Your task to perform on an android device: delete browsing data in the chrome app Image 0: 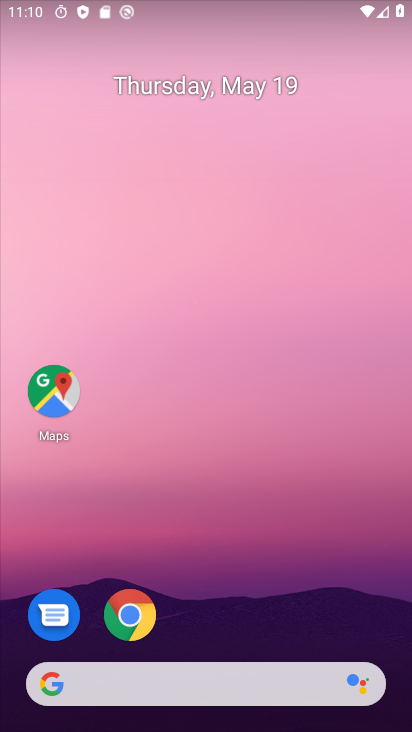
Step 0: click (138, 617)
Your task to perform on an android device: delete browsing data in the chrome app Image 1: 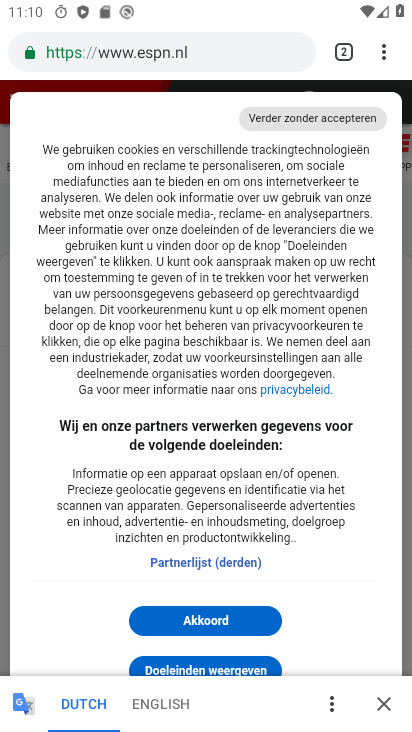
Step 1: click (381, 56)
Your task to perform on an android device: delete browsing data in the chrome app Image 2: 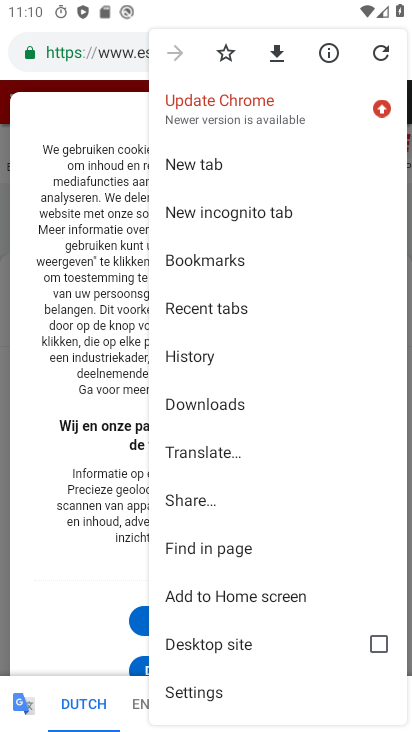
Step 2: click (205, 360)
Your task to perform on an android device: delete browsing data in the chrome app Image 3: 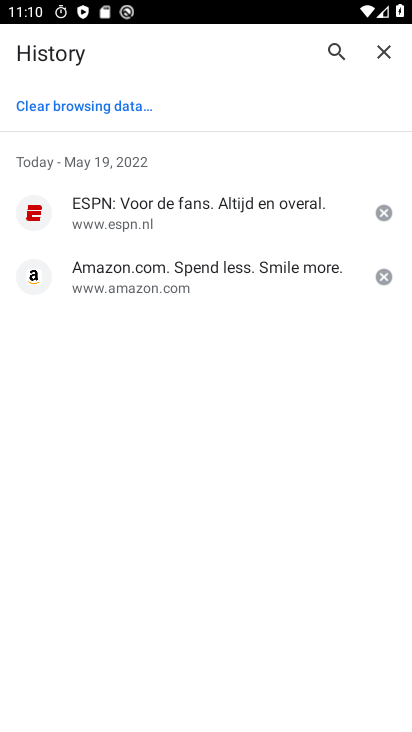
Step 3: click (95, 108)
Your task to perform on an android device: delete browsing data in the chrome app Image 4: 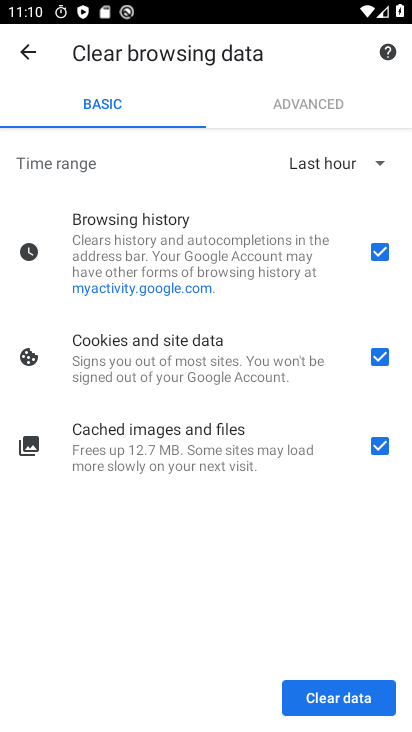
Step 4: click (329, 156)
Your task to perform on an android device: delete browsing data in the chrome app Image 5: 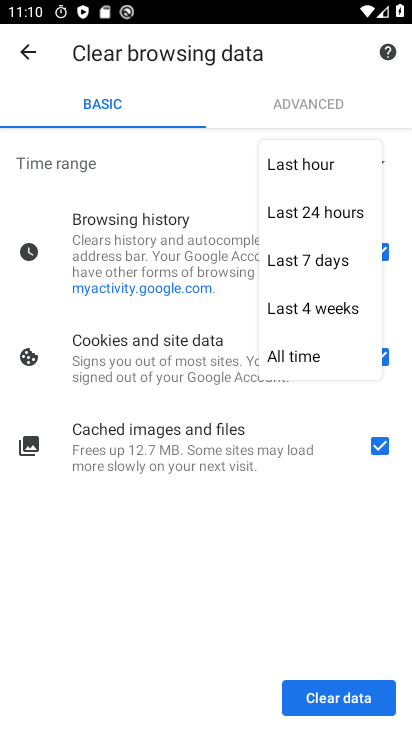
Step 5: click (312, 360)
Your task to perform on an android device: delete browsing data in the chrome app Image 6: 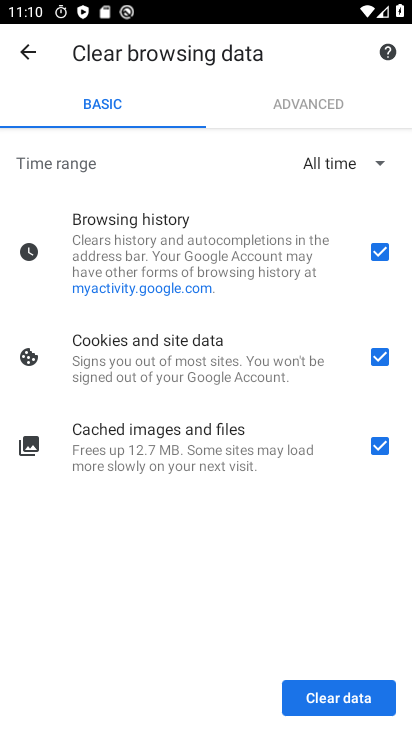
Step 6: click (385, 361)
Your task to perform on an android device: delete browsing data in the chrome app Image 7: 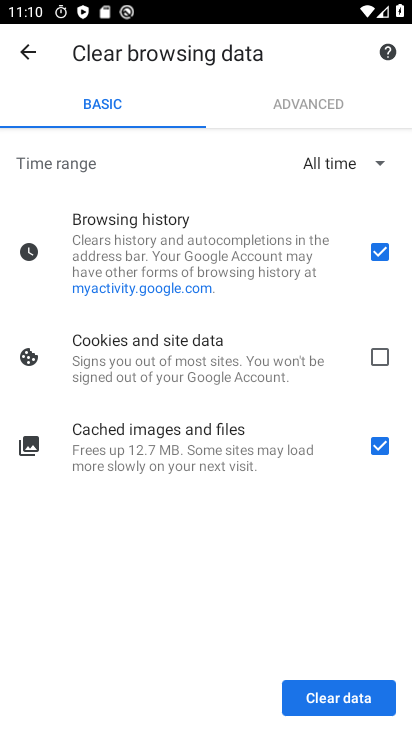
Step 7: click (381, 444)
Your task to perform on an android device: delete browsing data in the chrome app Image 8: 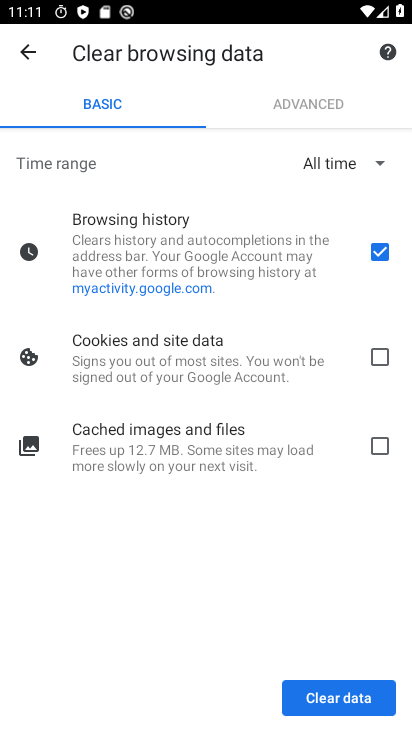
Step 8: click (337, 692)
Your task to perform on an android device: delete browsing data in the chrome app Image 9: 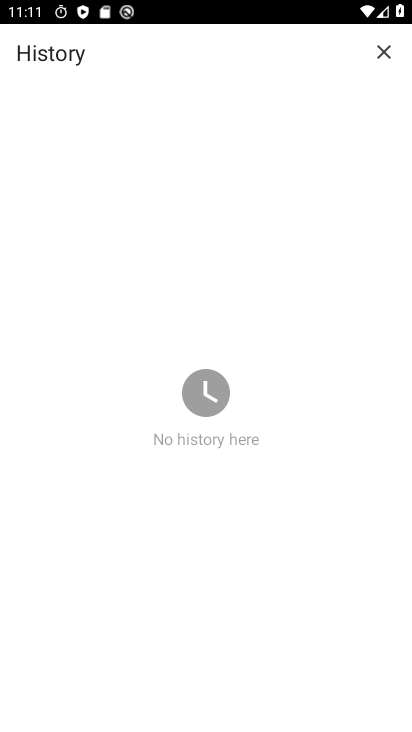
Step 9: task complete